Your task to perform on an android device: Turn off the flashlight Image 0: 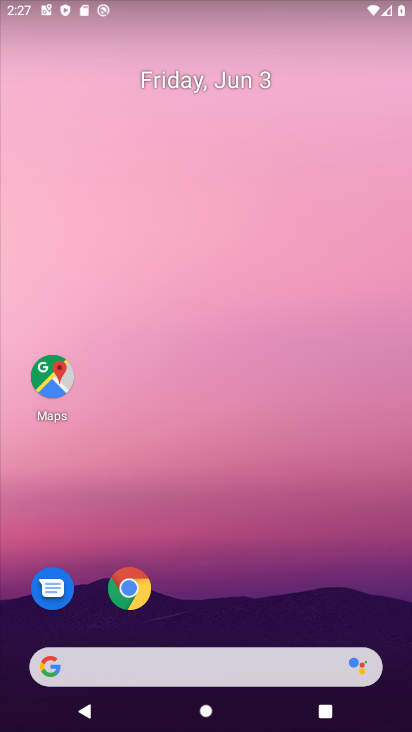
Step 0: drag from (261, 583) to (319, 168)
Your task to perform on an android device: Turn off the flashlight Image 1: 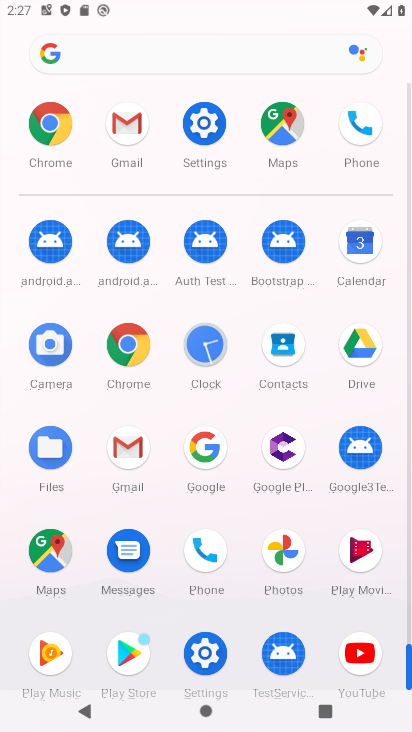
Step 1: click (216, 656)
Your task to perform on an android device: Turn off the flashlight Image 2: 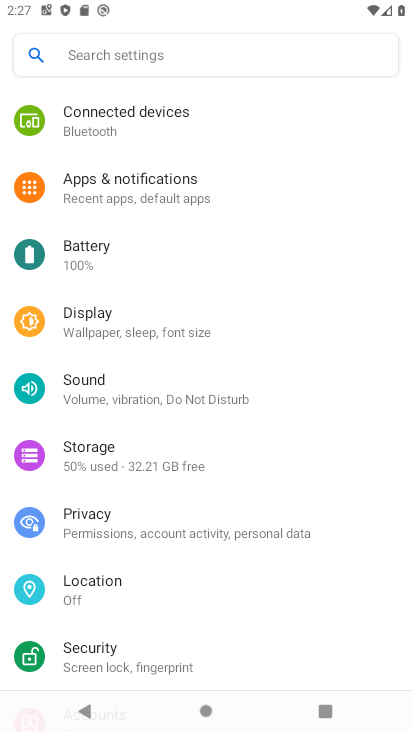
Step 2: task complete